Your task to perform on an android device: Open Amazon Image 0: 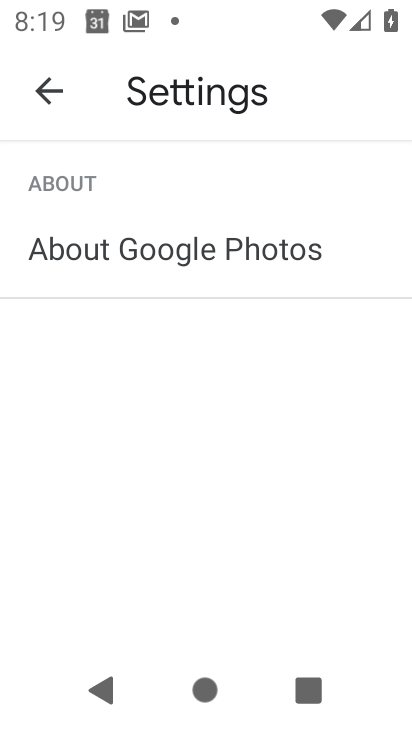
Step 0: press home button
Your task to perform on an android device: Open Amazon Image 1: 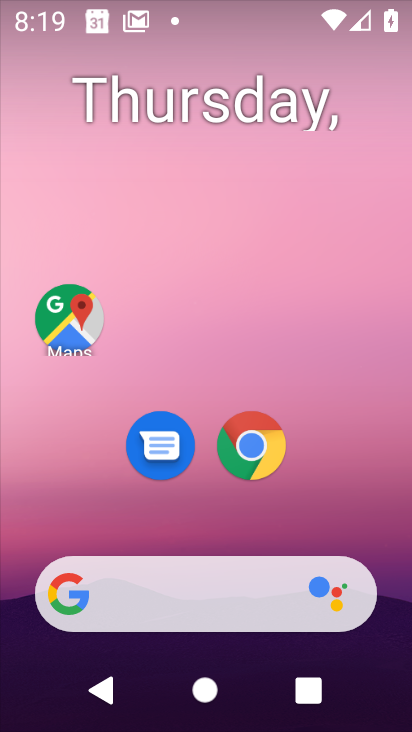
Step 1: drag from (214, 548) to (165, 32)
Your task to perform on an android device: Open Amazon Image 2: 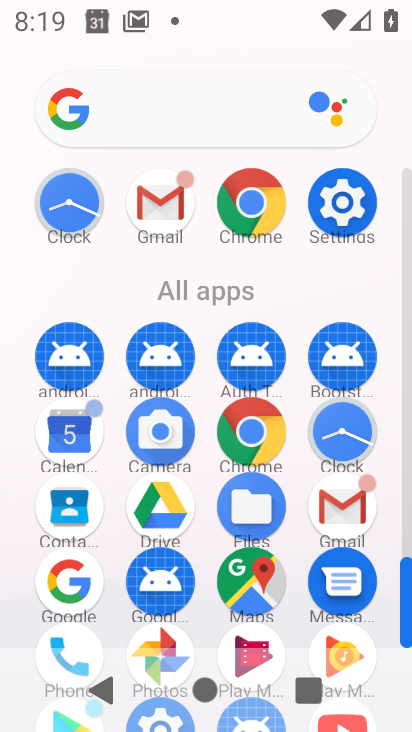
Step 2: click (246, 445)
Your task to perform on an android device: Open Amazon Image 3: 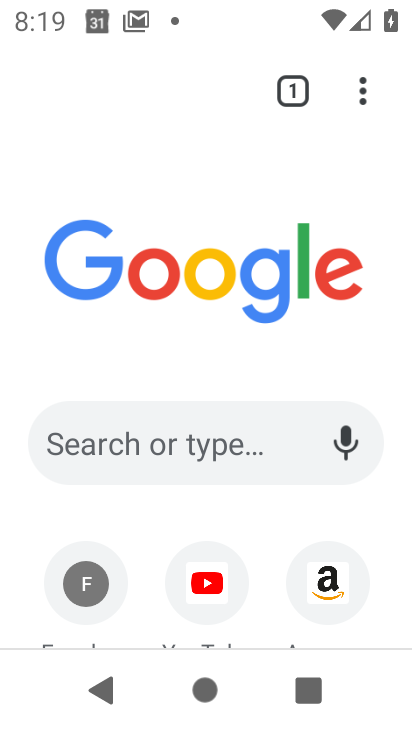
Step 3: click (320, 607)
Your task to perform on an android device: Open Amazon Image 4: 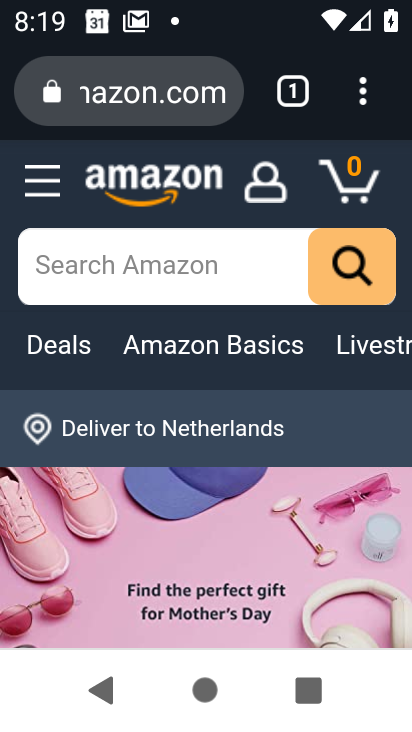
Step 4: task complete